Your task to perform on an android device: check battery use Image 0: 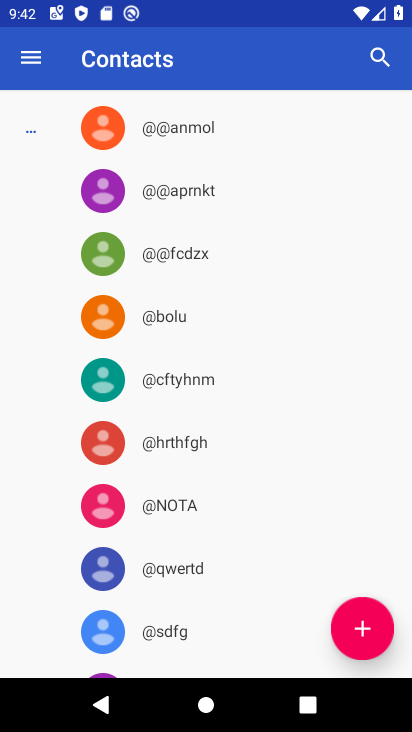
Step 0: press home button
Your task to perform on an android device: check battery use Image 1: 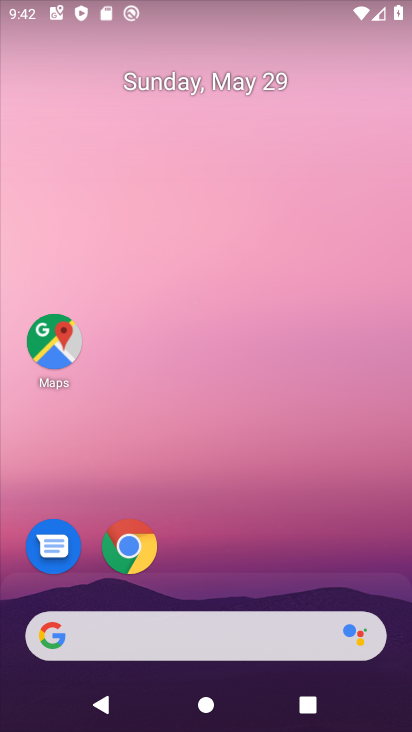
Step 1: drag from (298, 484) to (239, 20)
Your task to perform on an android device: check battery use Image 2: 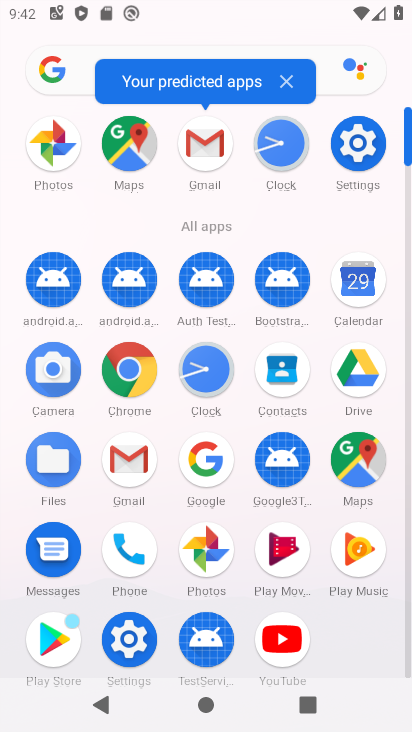
Step 2: click (366, 148)
Your task to perform on an android device: check battery use Image 3: 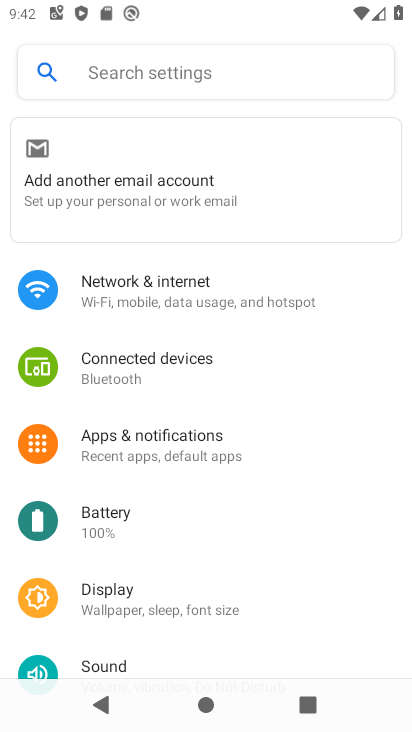
Step 3: click (145, 539)
Your task to perform on an android device: check battery use Image 4: 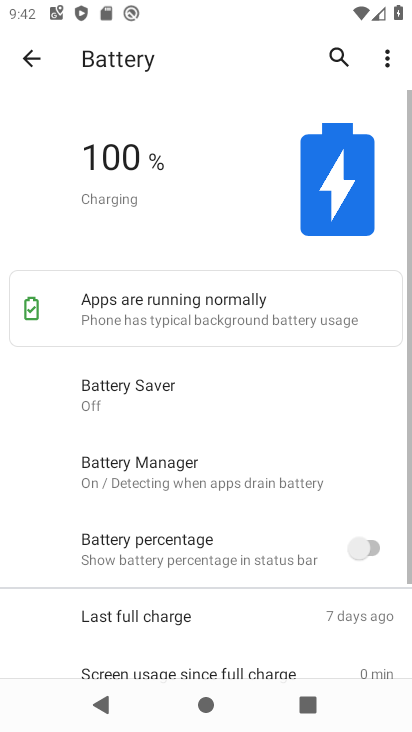
Step 4: click (380, 61)
Your task to perform on an android device: check battery use Image 5: 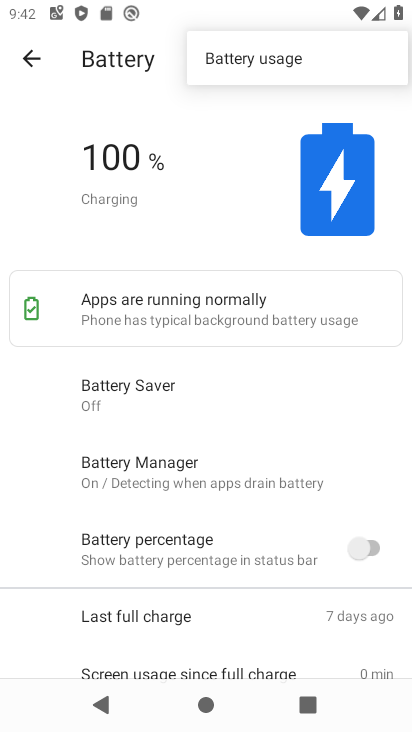
Step 5: click (332, 60)
Your task to perform on an android device: check battery use Image 6: 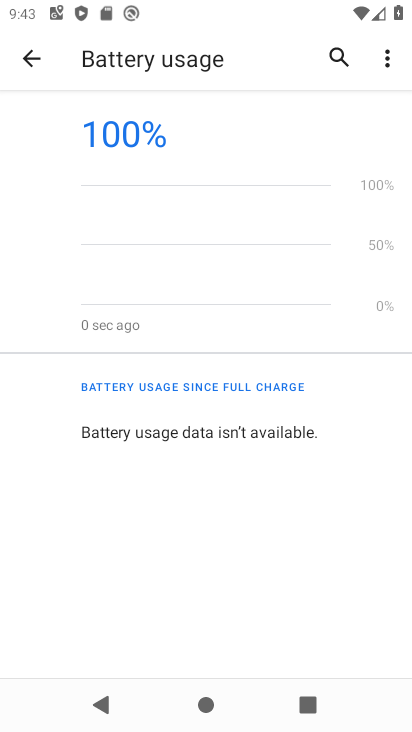
Step 6: task complete